Your task to perform on an android device: Open settings on Google Maps Image 0: 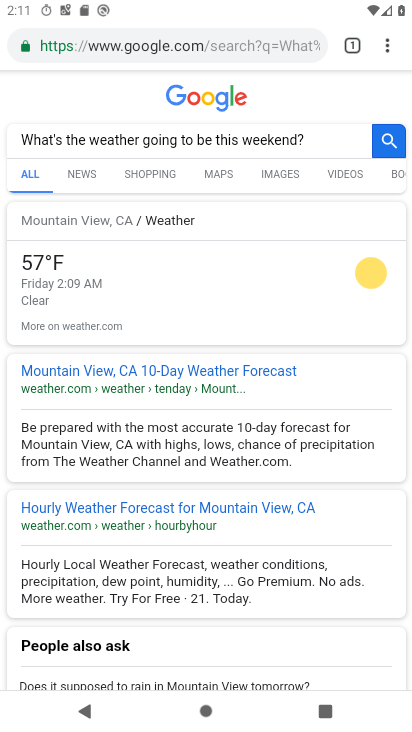
Step 0: press home button
Your task to perform on an android device: Open settings on Google Maps Image 1: 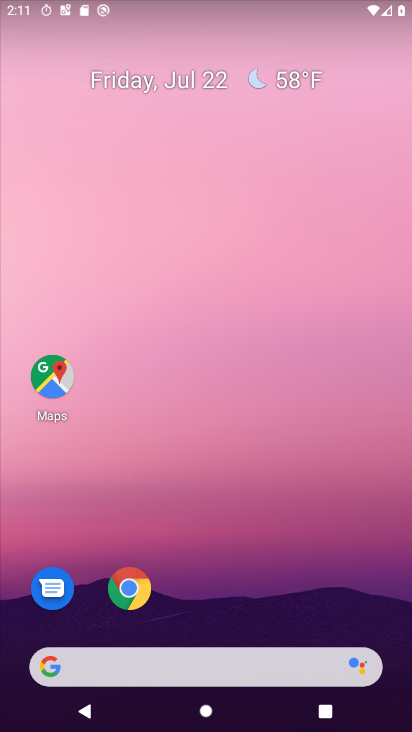
Step 1: click (69, 403)
Your task to perform on an android device: Open settings on Google Maps Image 2: 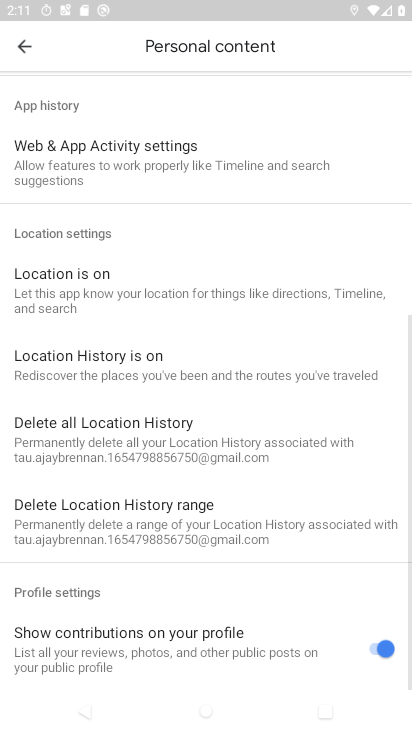
Step 2: click (25, 63)
Your task to perform on an android device: Open settings on Google Maps Image 3: 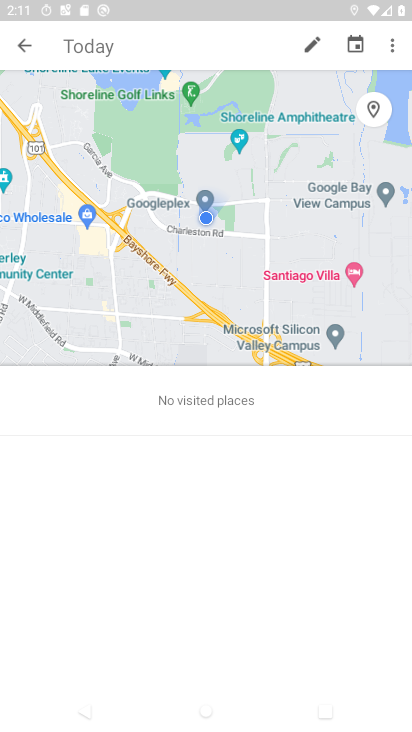
Step 3: click (25, 63)
Your task to perform on an android device: Open settings on Google Maps Image 4: 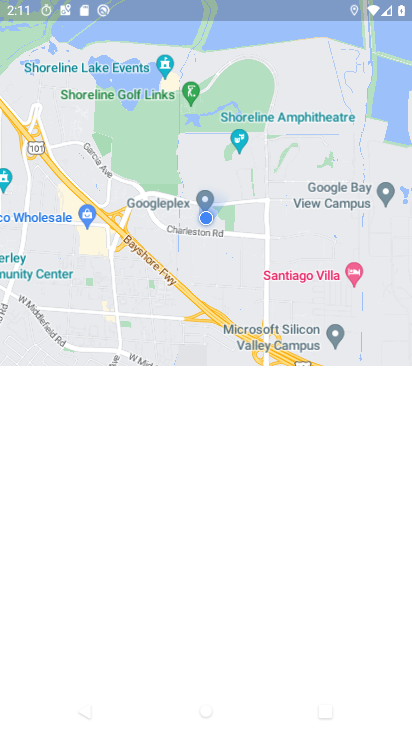
Step 4: click (25, 63)
Your task to perform on an android device: Open settings on Google Maps Image 5: 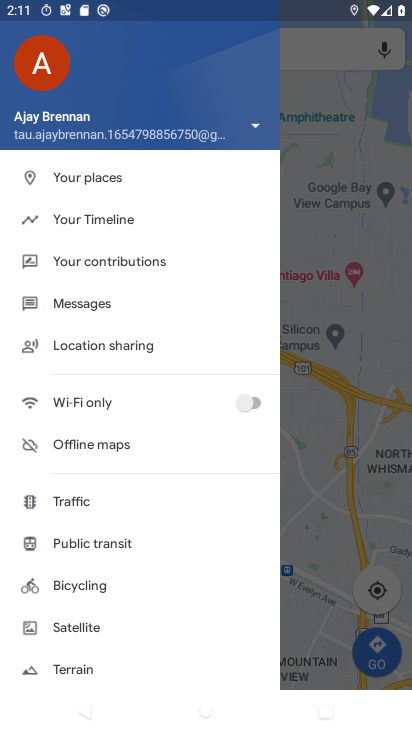
Step 5: drag from (96, 629) to (98, 297)
Your task to perform on an android device: Open settings on Google Maps Image 6: 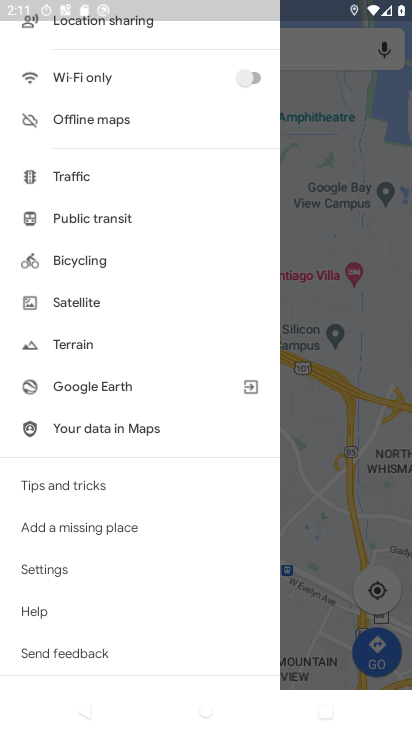
Step 6: click (51, 582)
Your task to perform on an android device: Open settings on Google Maps Image 7: 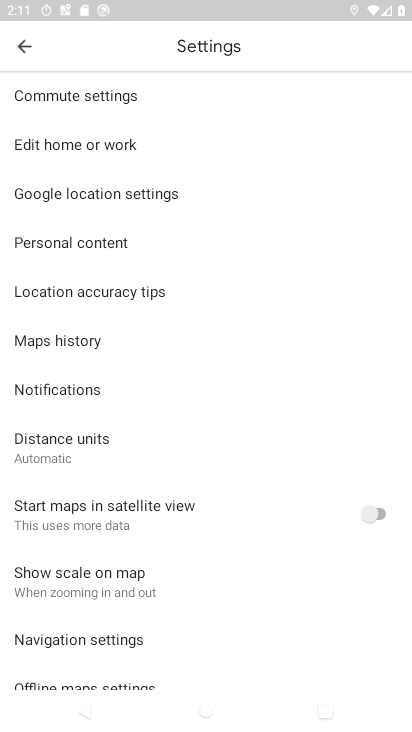
Step 7: task complete